Your task to perform on an android device: see sites visited before in the chrome app Image 0: 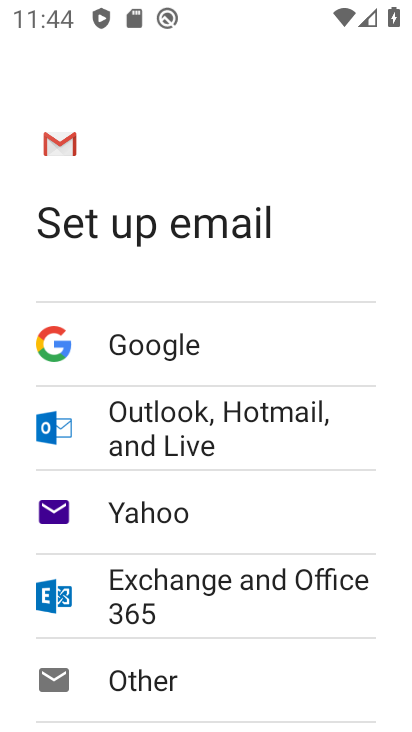
Step 0: press home button
Your task to perform on an android device: see sites visited before in the chrome app Image 1: 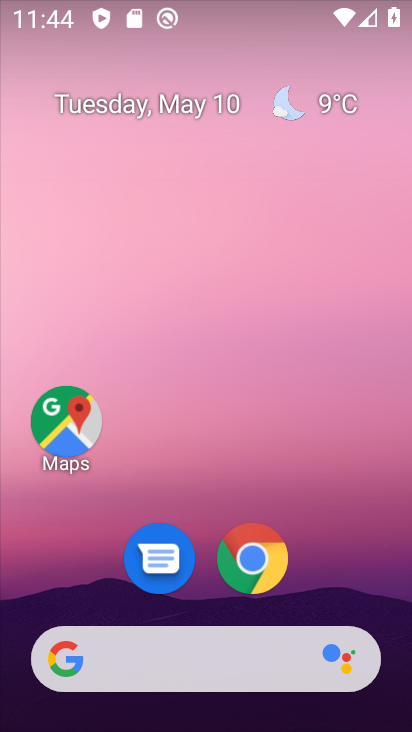
Step 1: drag from (390, 567) to (386, 119)
Your task to perform on an android device: see sites visited before in the chrome app Image 2: 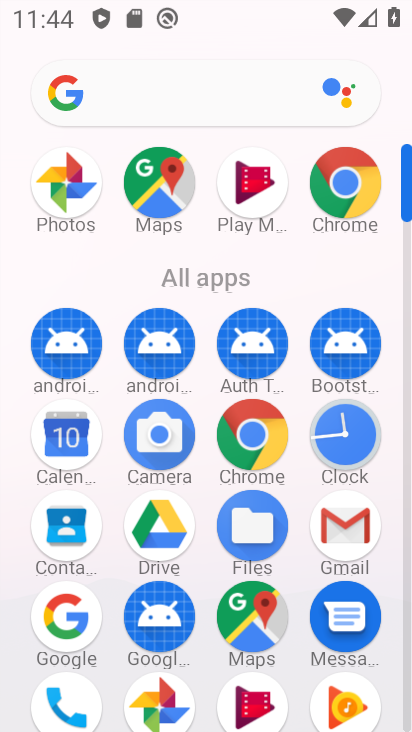
Step 2: click (245, 435)
Your task to perform on an android device: see sites visited before in the chrome app Image 3: 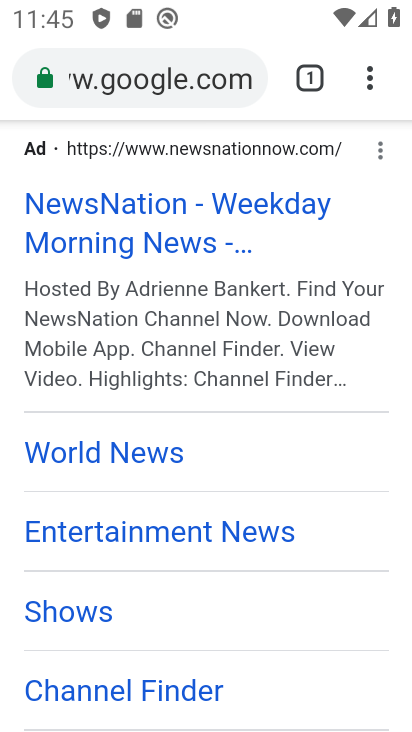
Step 3: task complete